Your task to perform on an android device: change the clock display to digital Image 0: 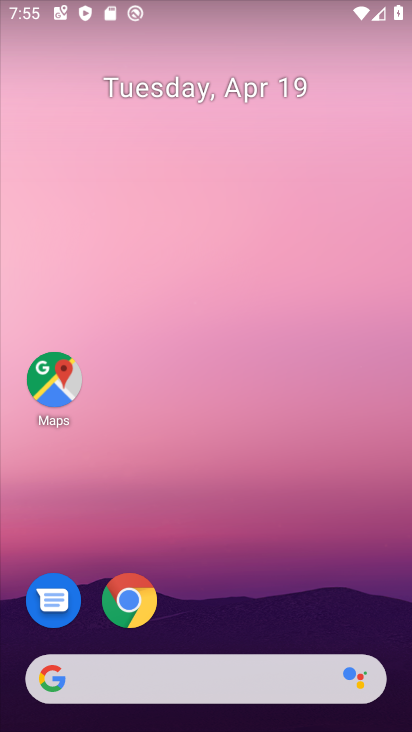
Step 0: drag from (325, 622) to (240, 93)
Your task to perform on an android device: change the clock display to digital Image 1: 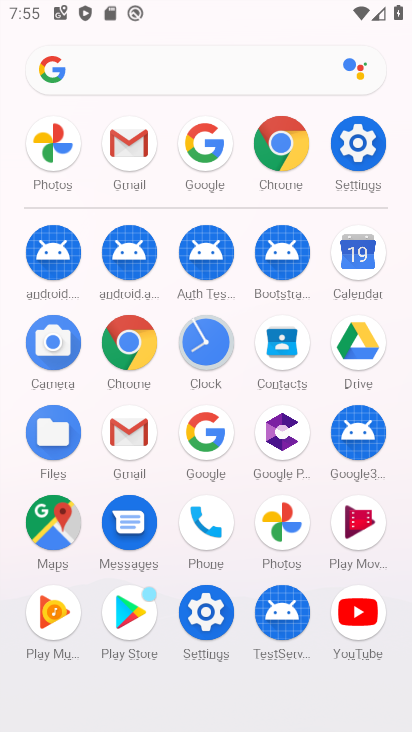
Step 1: click (213, 338)
Your task to perform on an android device: change the clock display to digital Image 2: 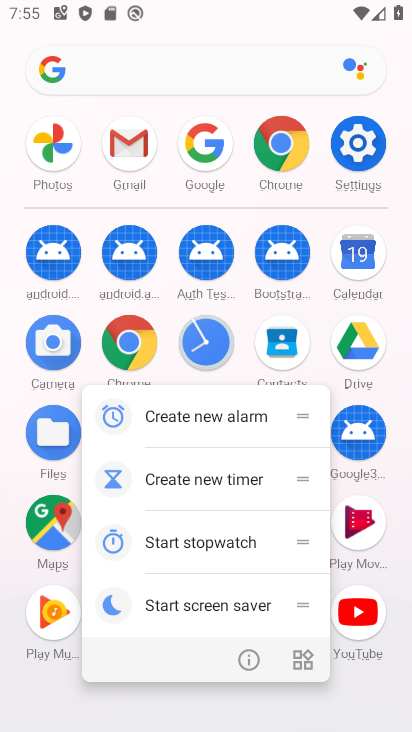
Step 2: click (205, 346)
Your task to perform on an android device: change the clock display to digital Image 3: 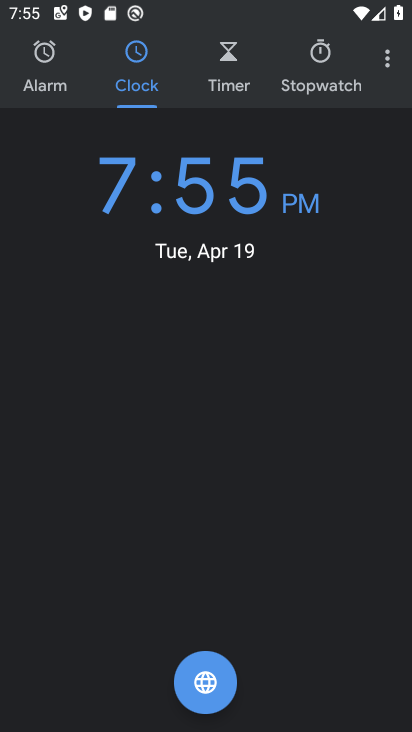
Step 3: click (385, 55)
Your task to perform on an android device: change the clock display to digital Image 4: 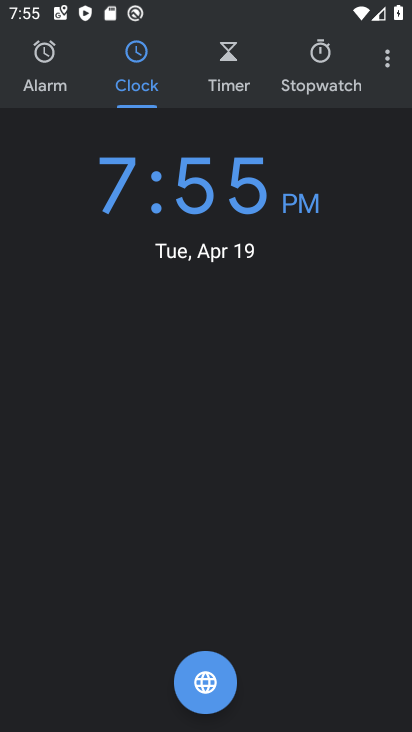
Step 4: click (394, 49)
Your task to perform on an android device: change the clock display to digital Image 5: 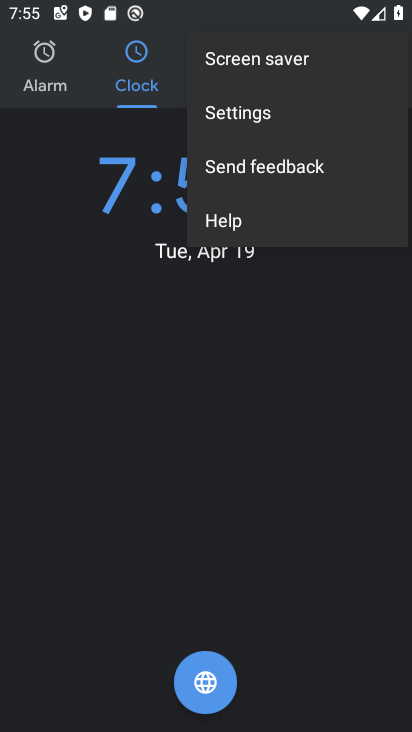
Step 5: click (307, 123)
Your task to perform on an android device: change the clock display to digital Image 6: 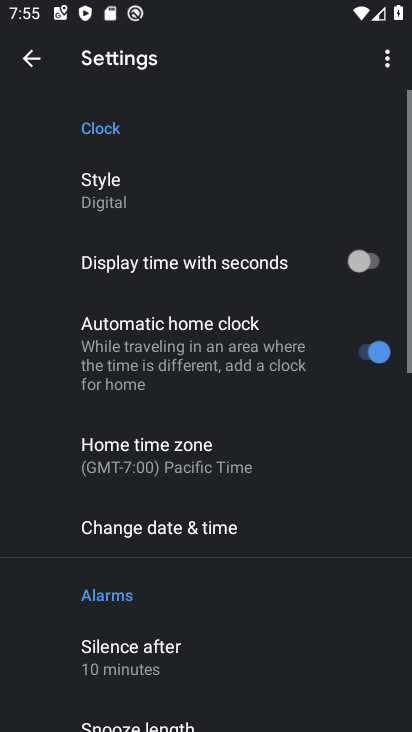
Step 6: click (158, 142)
Your task to perform on an android device: change the clock display to digital Image 7: 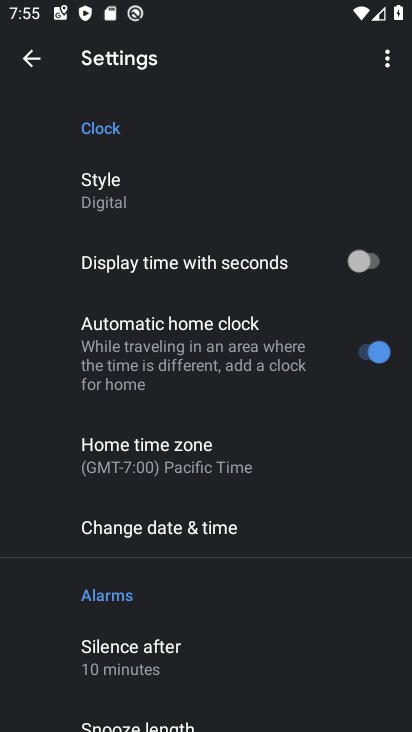
Step 7: click (152, 181)
Your task to perform on an android device: change the clock display to digital Image 8: 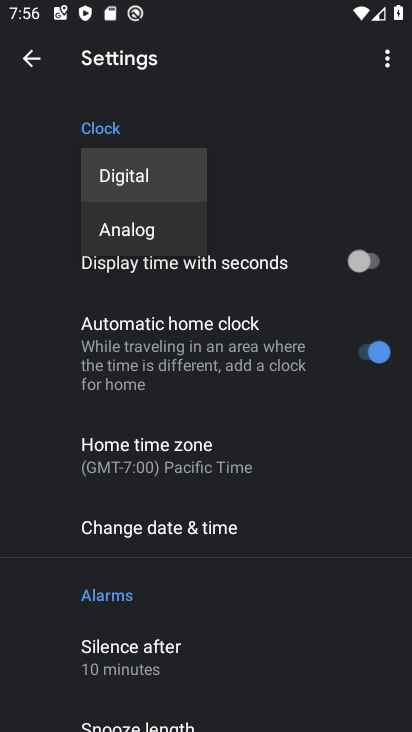
Step 8: click (161, 166)
Your task to perform on an android device: change the clock display to digital Image 9: 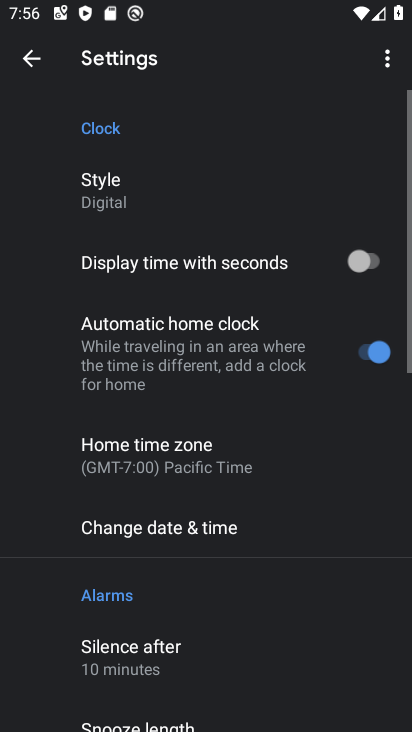
Step 9: task complete